Your task to perform on an android device: open app "Life360: Find Family & Friends" (install if not already installed) Image 0: 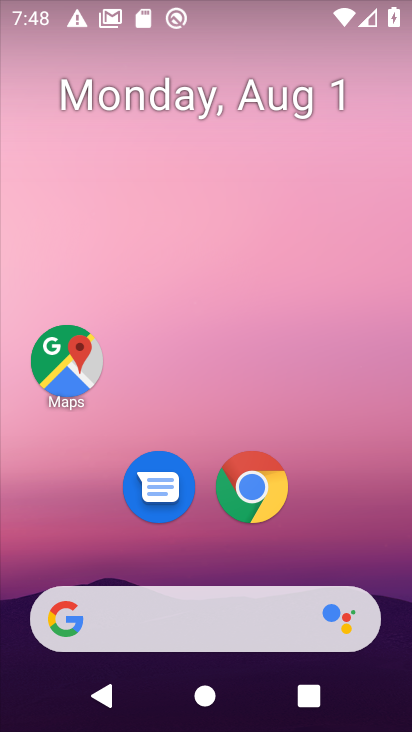
Step 0: drag from (377, 560) to (351, 76)
Your task to perform on an android device: open app "Life360: Find Family & Friends" (install if not already installed) Image 1: 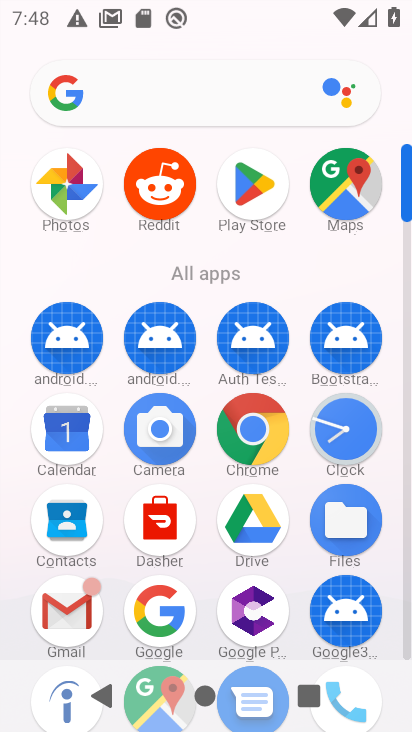
Step 1: click (247, 196)
Your task to perform on an android device: open app "Life360: Find Family & Friends" (install if not already installed) Image 2: 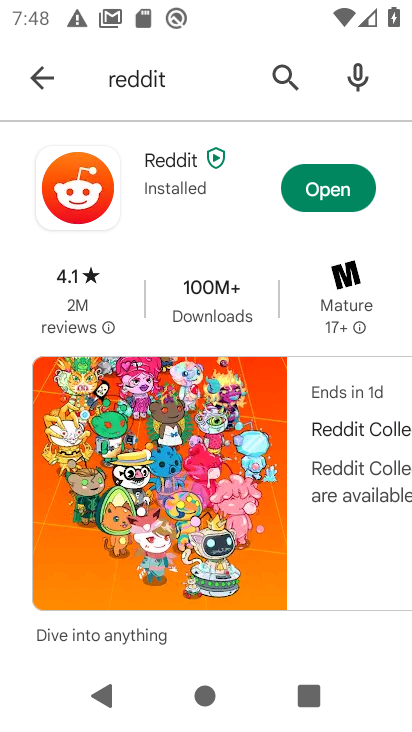
Step 2: click (282, 72)
Your task to perform on an android device: open app "Life360: Find Family & Friends" (install if not already installed) Image 3: 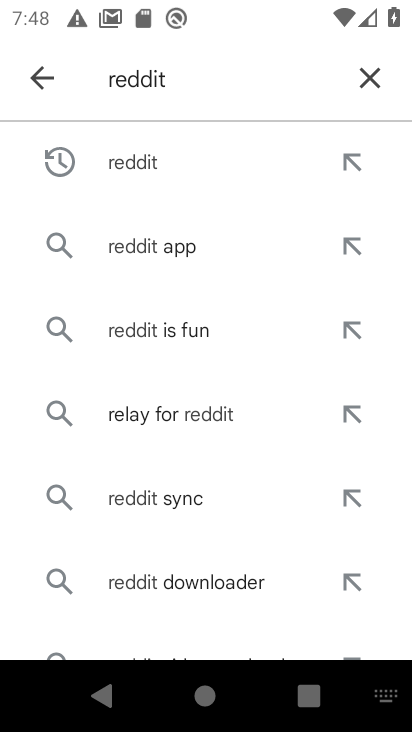
Step 3: click (367, 78)
Your task to perform on an android device: open app "Life360: Find Family & Friends" (install if not already installed) Image 4: 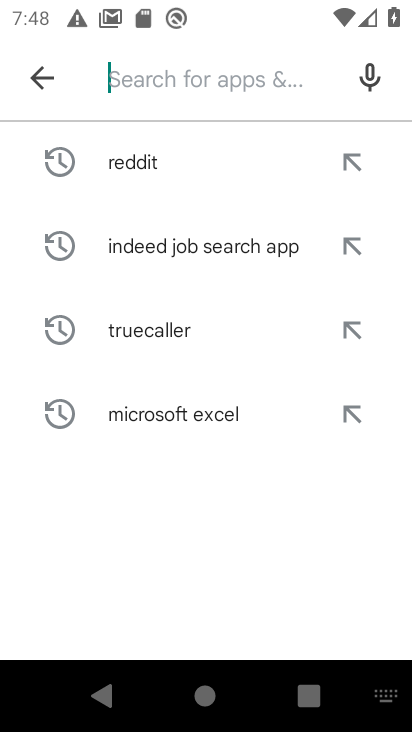
Step 4: type "Life360: Find Family & Friends"
Your task to perform on an android device: open app "Life360: Find Family & Friends" (install if not already installed) Image 5: 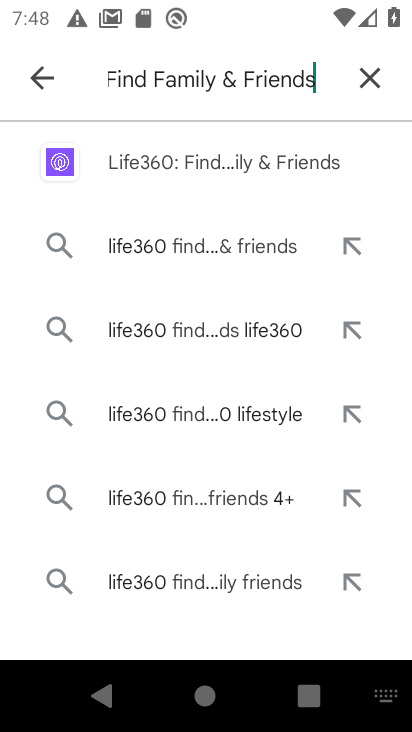
Step 5: click (269, 159)
Your task to perform on an android device: open app "Life360: Find Family & Friends" (install if not already installed) Image 6: 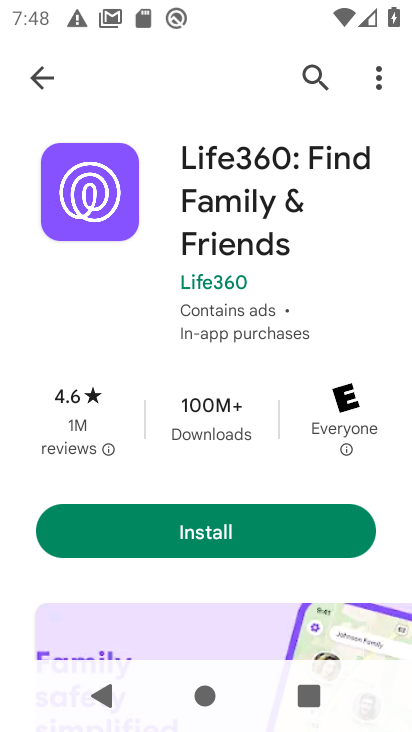
Step 6: click (264, 533)
Your task to perform on an android device: open app "Life360: Find Family & Friends" (install if not already installed) Image 7: 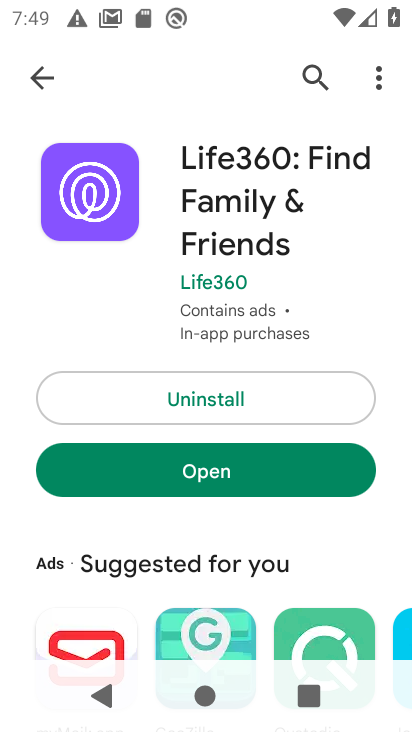
Step 7: click (328, 477)
Your task to perform on an android device: open app "Life360: Find Family & Friends" (install if not already installed) Image 8: 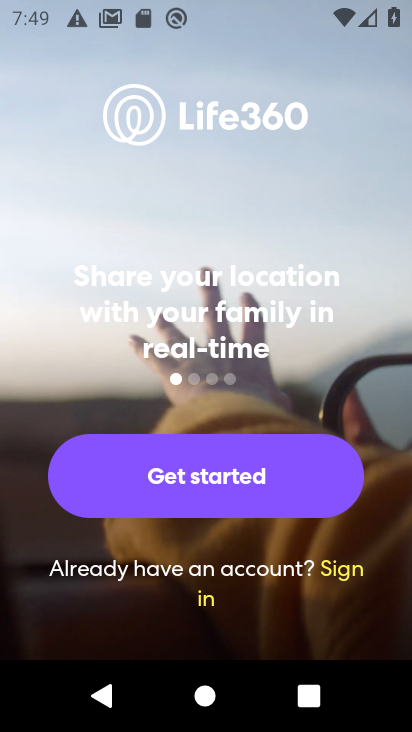
Step 8: task complete